Your task to perform on an android device: check the backup settings in the google photos Image 0: 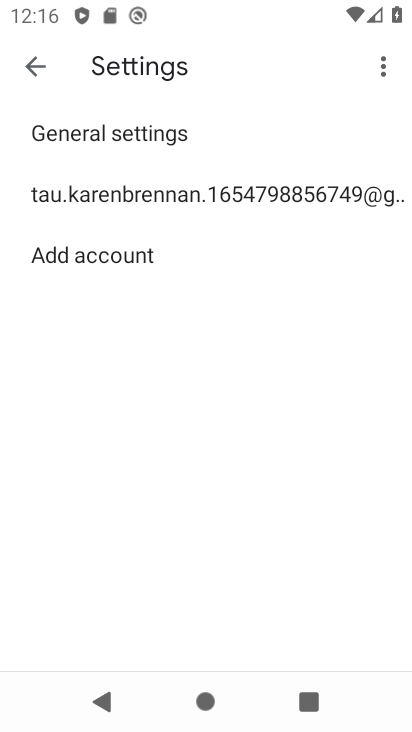
Step 0: press home button
Your task to perform on an android device: check the backup settings in the google photos Image 1: 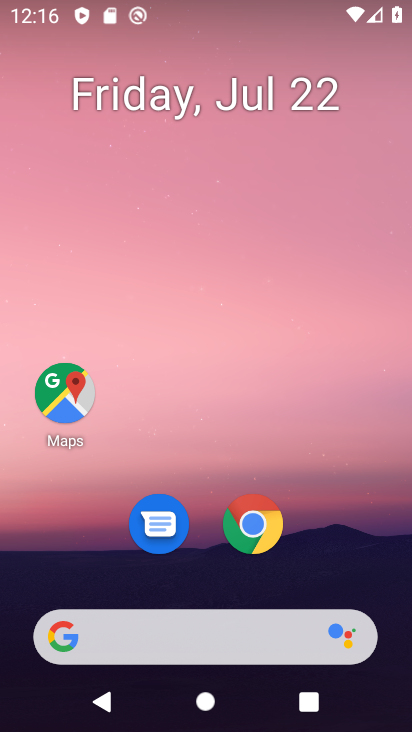
Step 1: drag from (173, 643) to (320, 31)
Your task to perform on an android device: check the backup settings in the google photos Image 2: 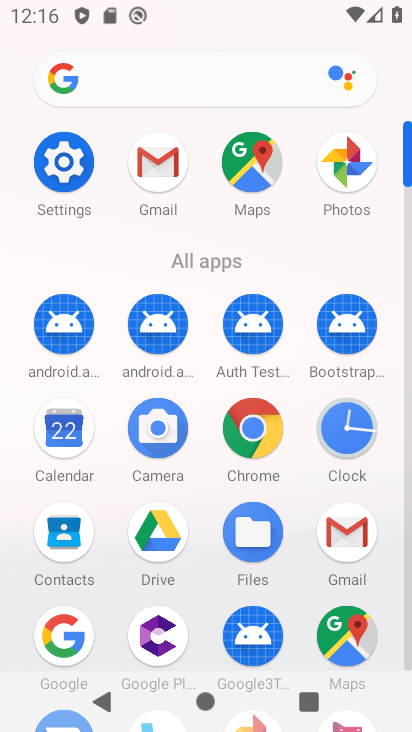
Step 2: drag from (220, 603) to (337, 111)
Your task to perform on an android device: check the backup settings in the google photos Image 3: 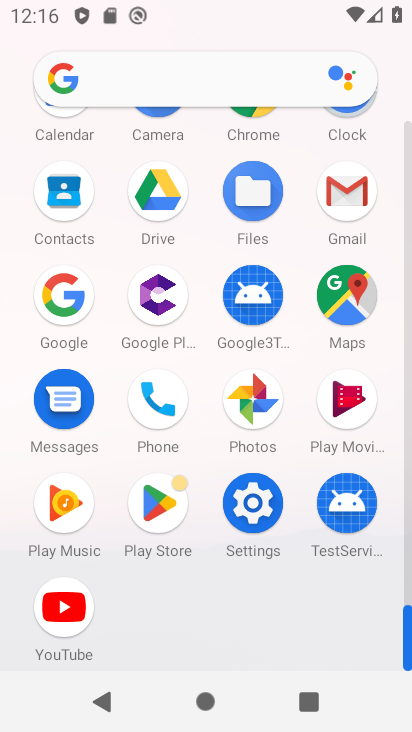
Step 3: click (259, 407)
Your task to perform on an android device: check the backup settings in the google photos Image 4: 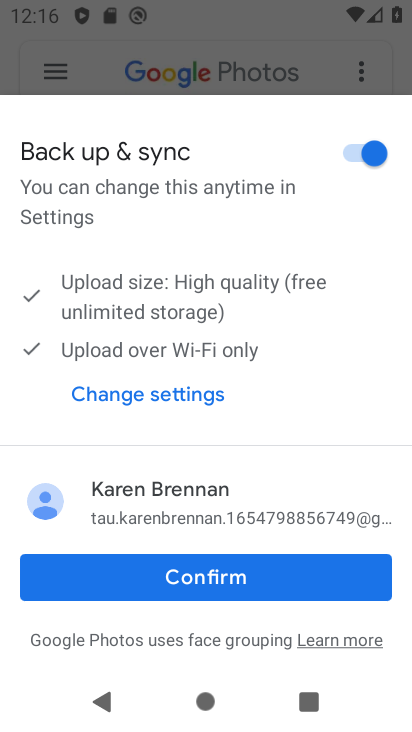
Step 4: click (210, 574)
Your task to perform on an android device: check the backup settings in the google photos Image 5: 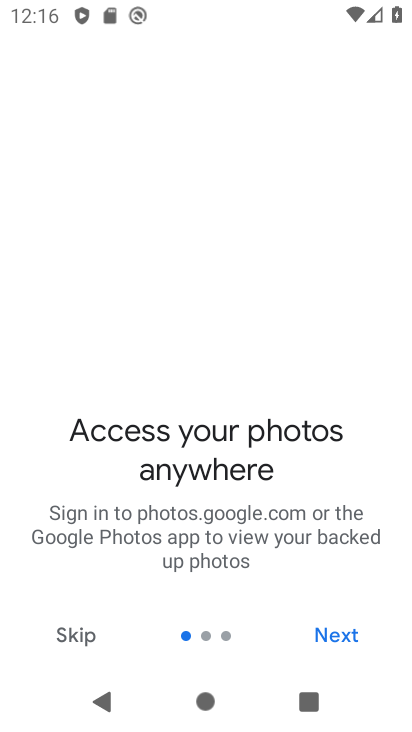
Step 5: click (326, 638)
Your task to perform on an android device: check the backup settings in the google photos Image 6: 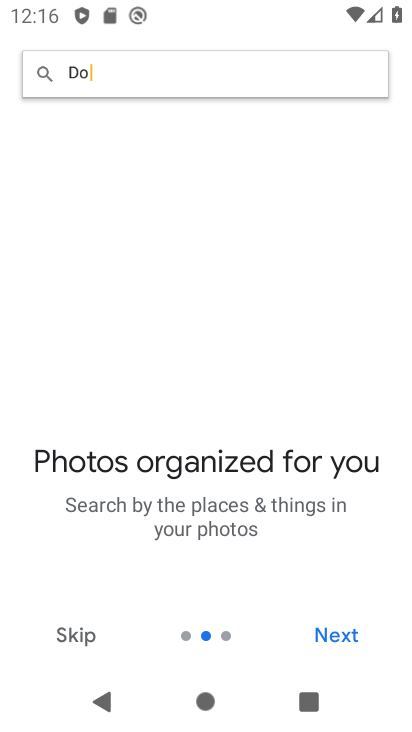
Step 6: click (326, 638)
Your task to perform on an android device: check the backup settings in the google photos Image 7: 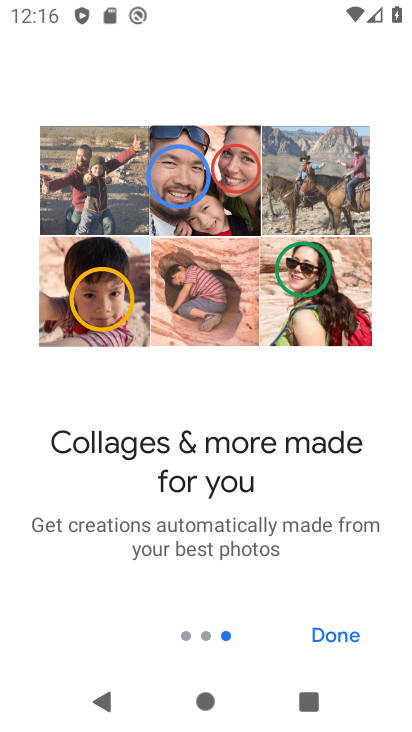
Step 7: click (326, 638)
Your task to perform on an android device: check the backup settings in the google photos Image 8: 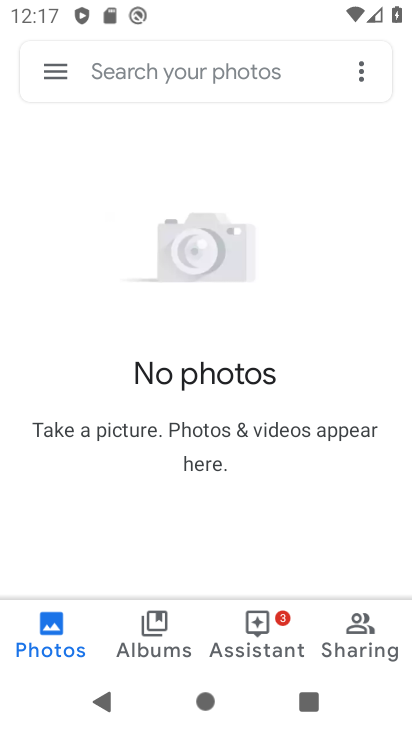
Step 8: click (57, 70)
Your task to perform on an android device: check the backup settings in the google photos Image 9: 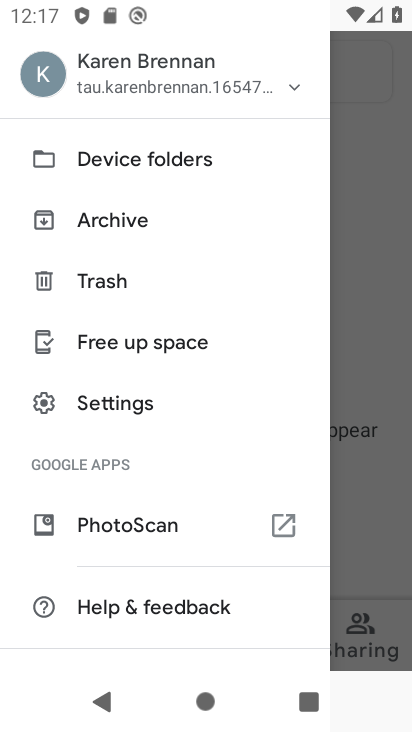
Step 9: click (136, 405)
Your task to perform on an android device: check the backup settings in the google photos Image 10: 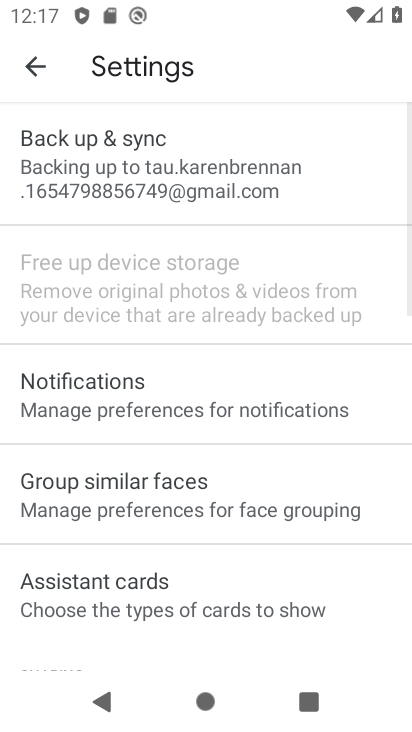
Step 10: click (181, 209)
Your task to perform on an android device: check the backup settings in the google photos Image 11: 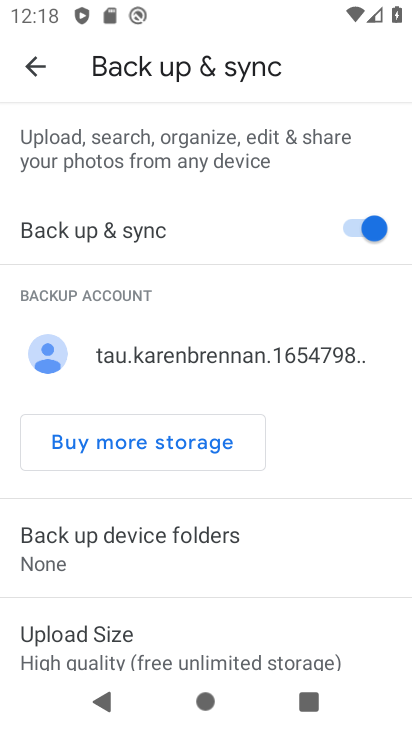
Step 11: task complete